Your task to perform on an android device: Open Google Chrome Image 0: 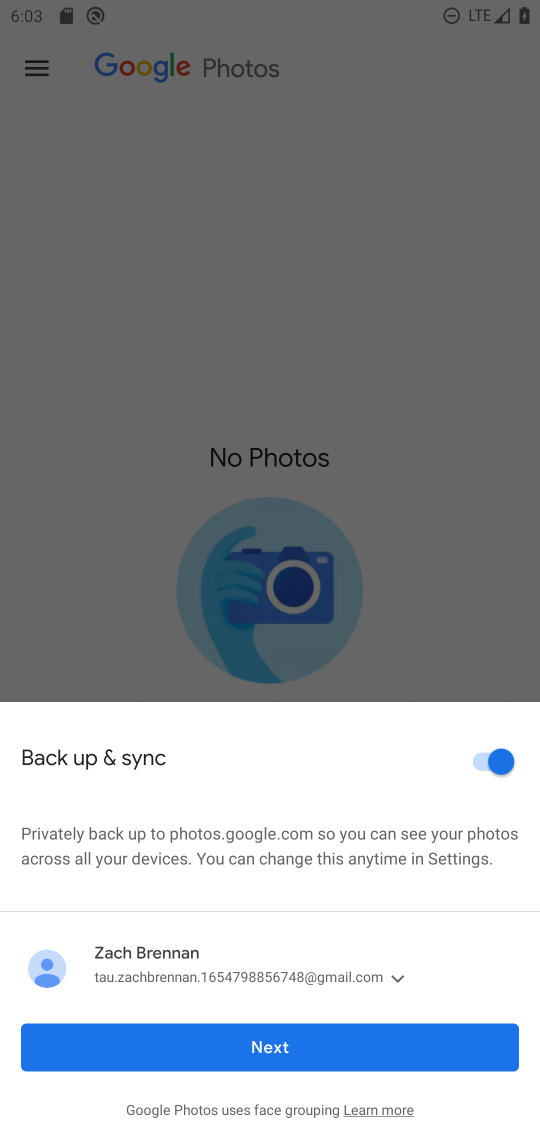
Step 0: press home button
Your task to perform on an android device: Open Google Chrome Image 1: 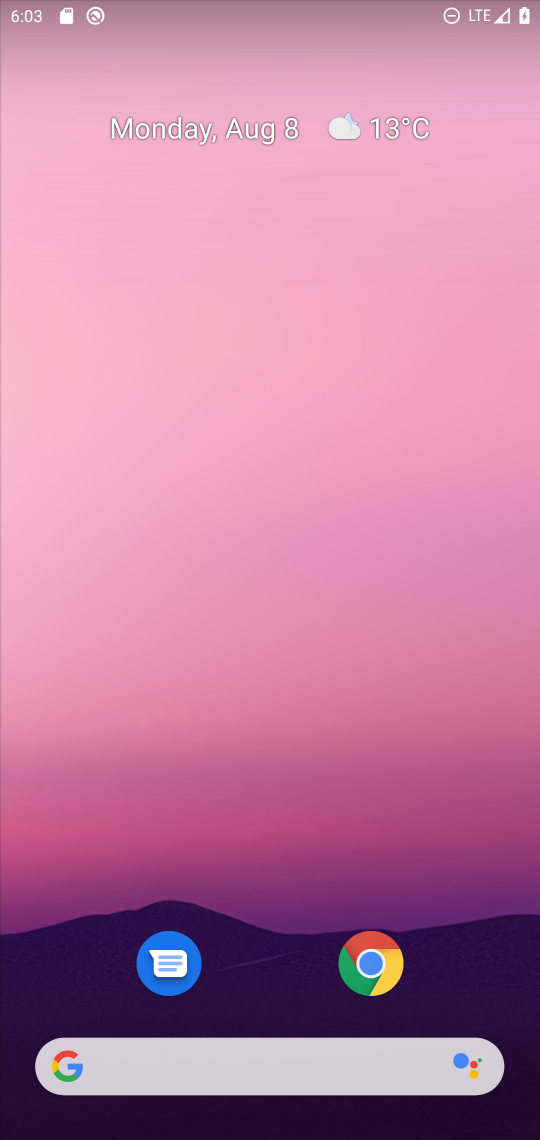
Step 1: click (375, 953)
Your task to perform on an android device: Open Google Chrome Image 2: 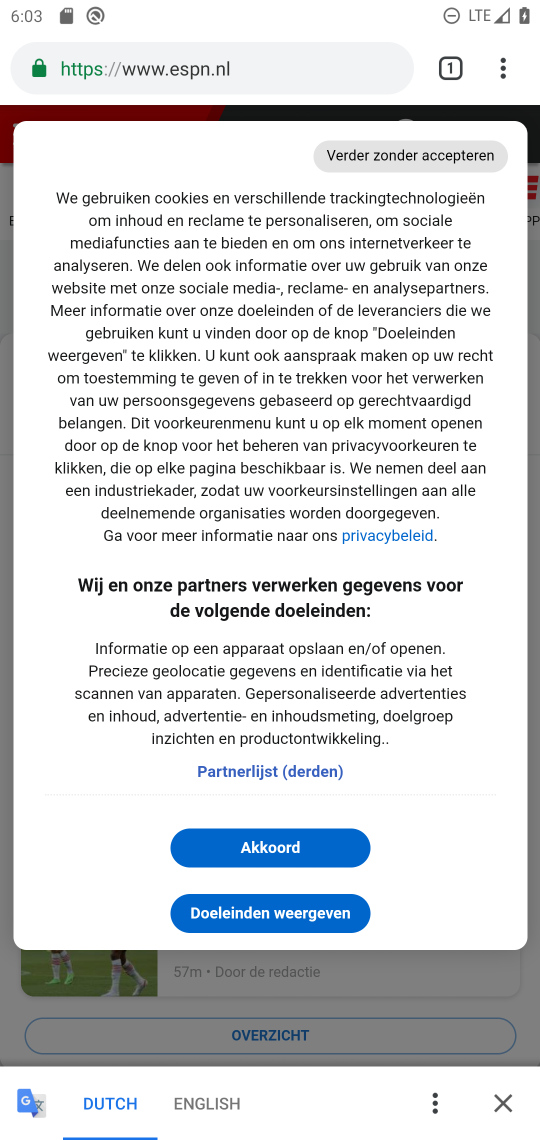
Step 2: task complete